Your task to perform on an android device: open app "WhatsApp Messenger" (install if not already installed), go to login, and select forgot password Image 0: 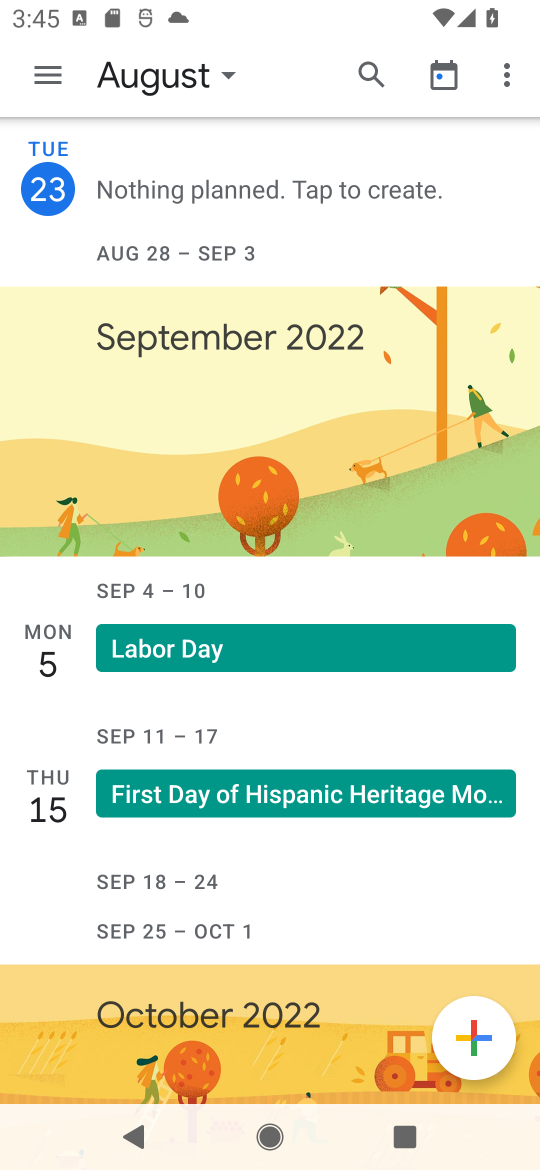
Step 0: press home button
Your task to perform on an android device: open app "WhatsApp Messenger" (install if not already installed), go to login, and select forgot password Image 1: 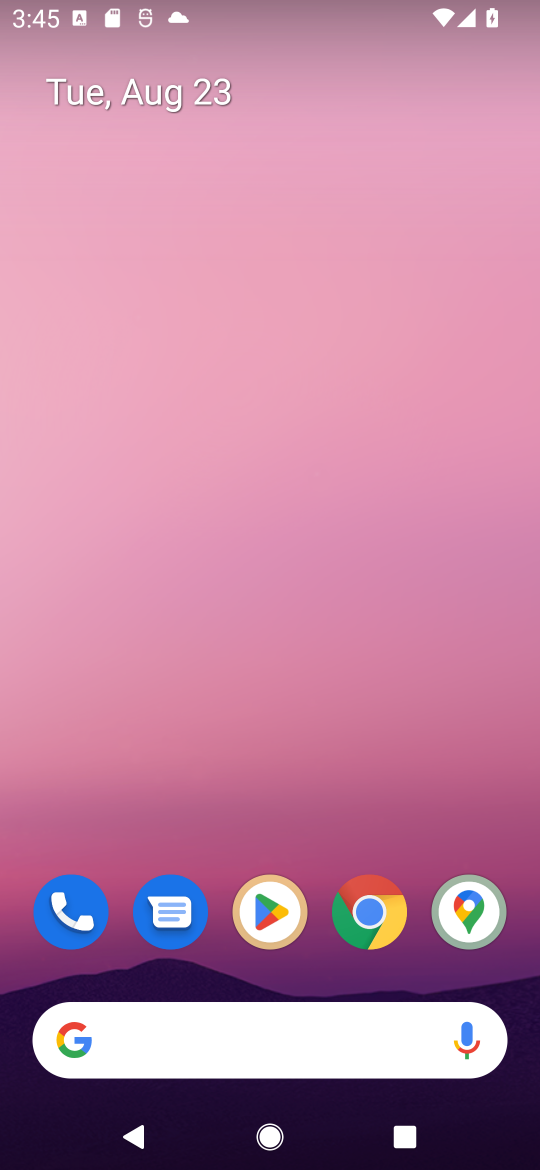
Step 1: drag from (199, 1057) to (288, 160)
Your task to perform on an android device: open app "WhatsApp Messenger" (install if not already installed), go to login, and select forgot password Image 2: 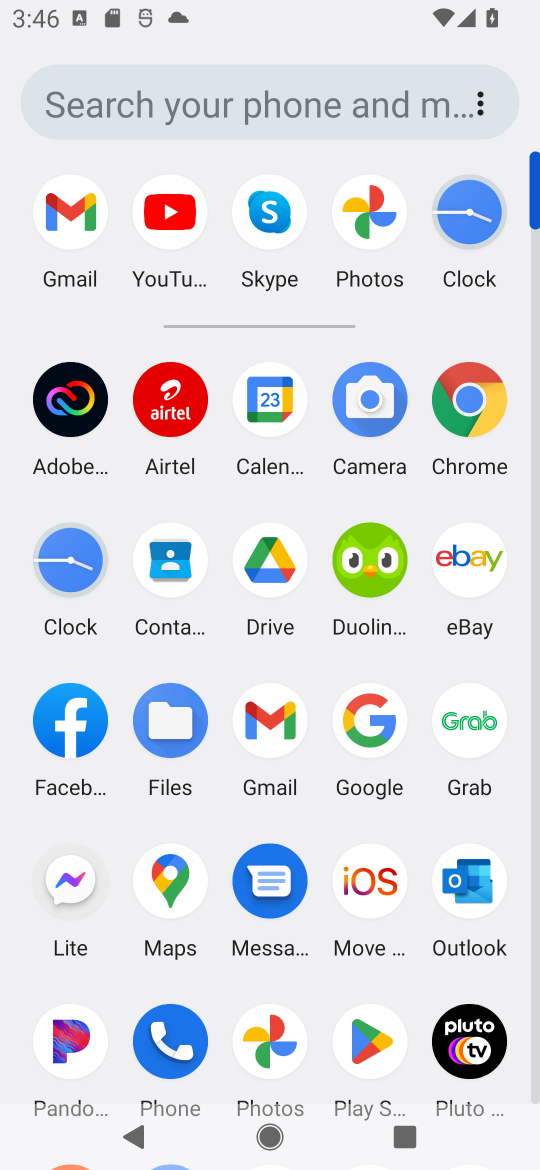
Step 2: click (360, 1031)
Your task to perform on an android device: open app "WhatsApp Messenger" (install if not already installed), go to login, and select forgot password Image 3: 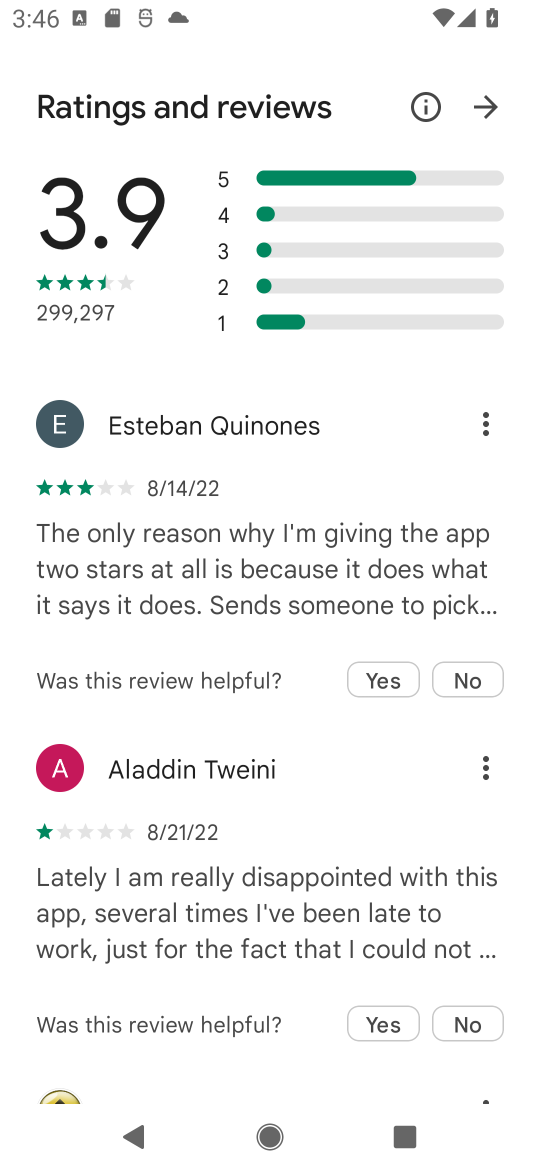
Step 3: press back button
Your task to perform on an android device: open app "WhatsApp Messenger" (install if not already installed), go to login, and select forgot password Image 4: 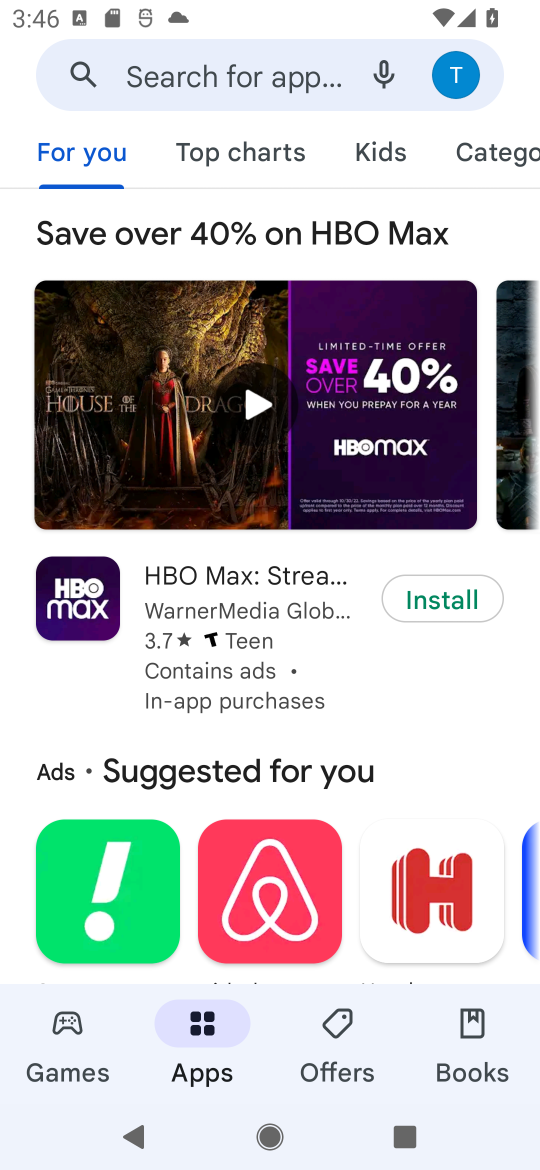
Step 4: click (171, 75)
Your task to perform on an android device: open app "WhatsApp Messenger" (install if not already installed), go to login, and select forgot password Image 5: 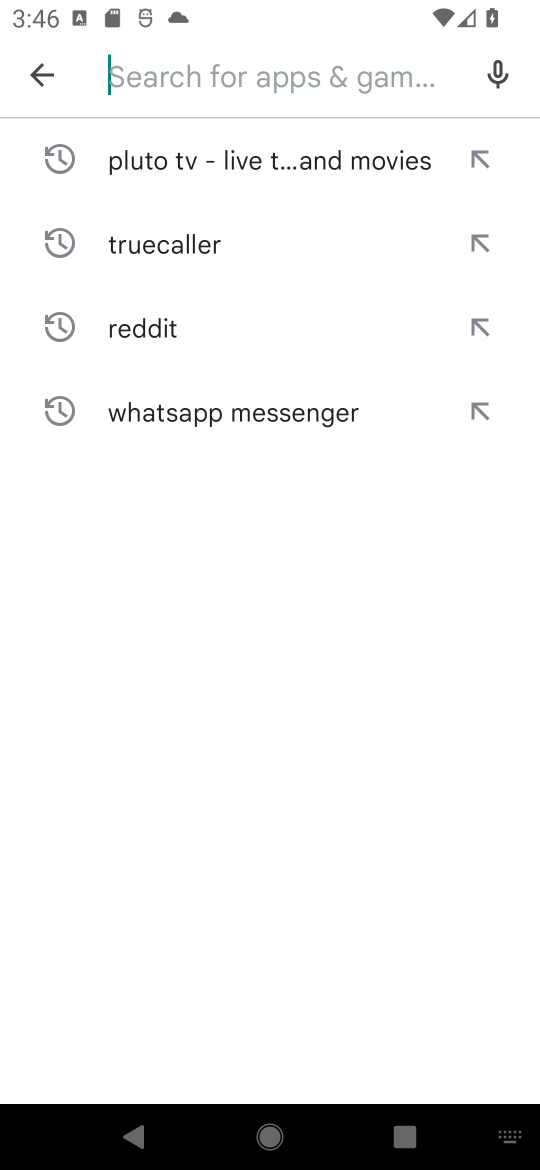
Step 5: type "WhatsApp Messenger"
Your task to perform on an android device: open app "WhatsApp Messenger" (install if not already installed), go to login, and select forgot password Image 6: 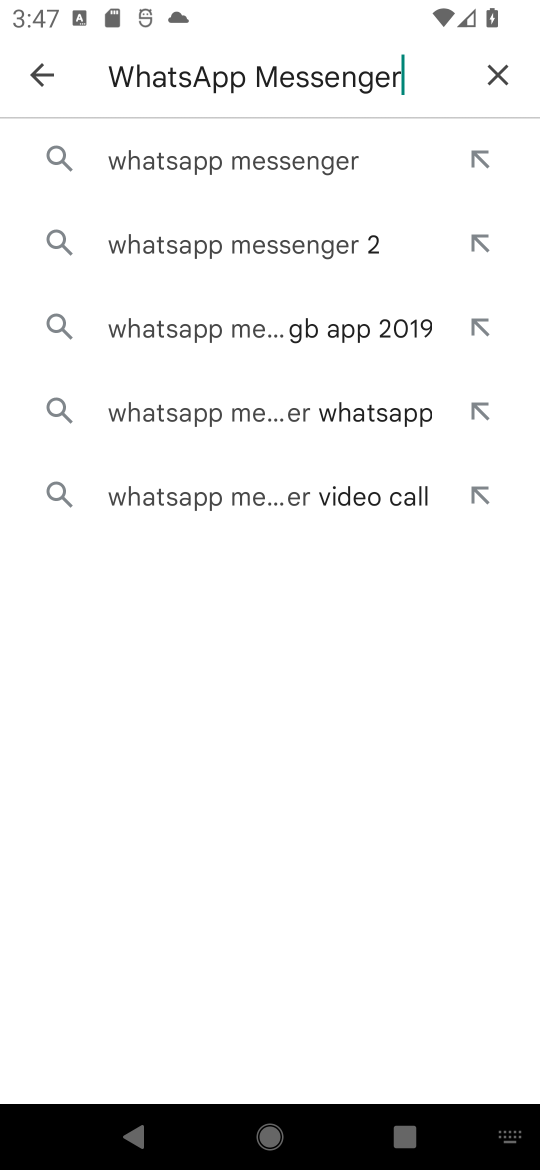
Step 6: click (282, 171)
Your task to perform on an android device: open app "WhatsApp Messenger" (install if not already installed), go to login, and select forgot password Image 7: 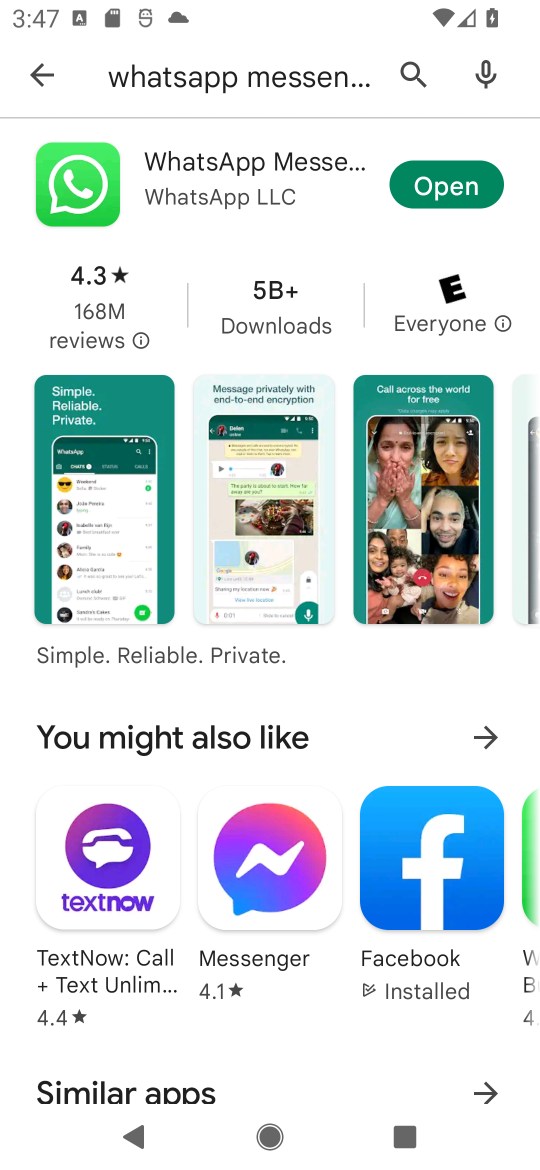
Step 7: click (435, 183)
Your task to perform on an android device: open app "WhatsApp Messenger" (install if not already installed), go to login, and select forgot password Image 8: 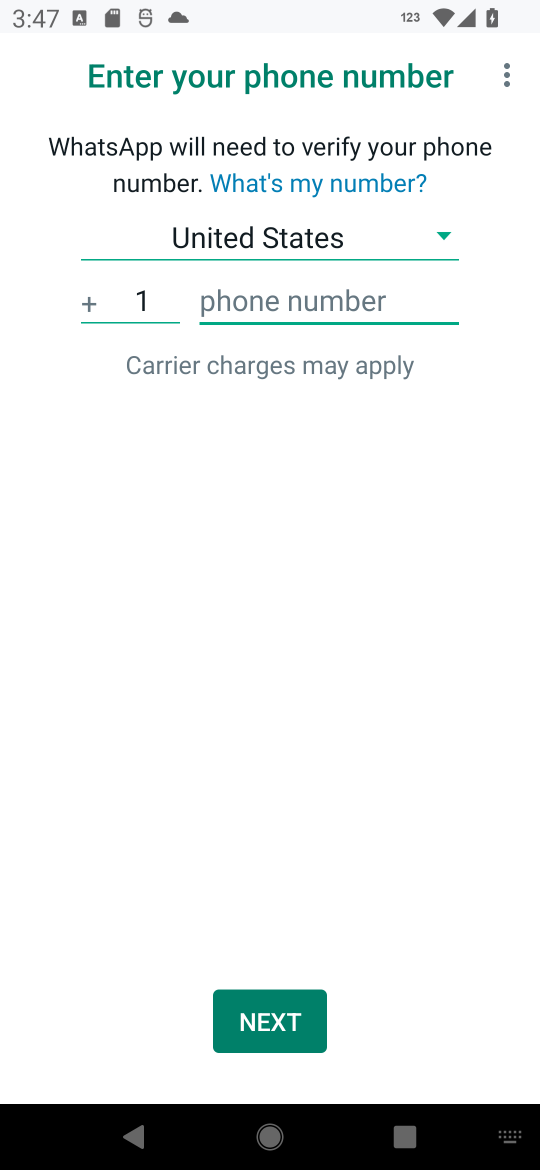
Step 8: task complete